Your task to perform on an android device: change the upload size in google photos Image 0: 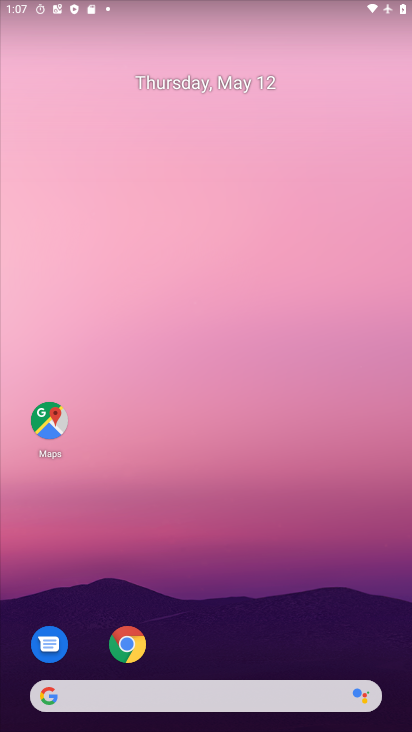
Step 0: drag from (275, 588) to (183, 116)
Your task to perform on an android device: change the upload size in google photos Image 1: 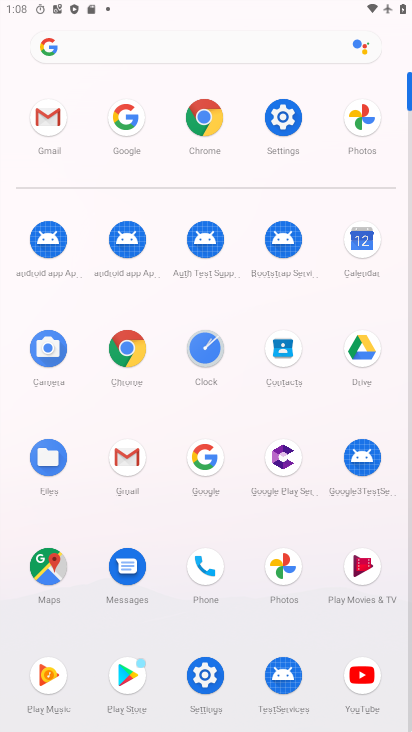
Step 1: click (280, 577)
Your task to perform on an android device: change the upload size in google photos Image 2: 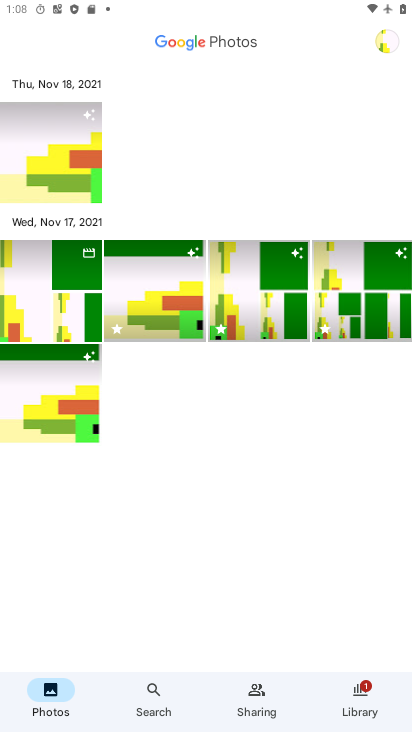
Step 2: click (382, 39)
Your task to perform on an android device: change the upload size in google photos Image 3: 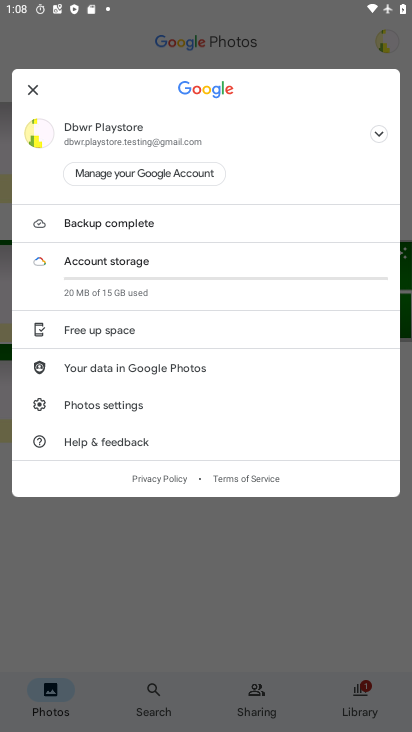
Step 3: click (119, 404)
Your task to perform on an android device: change the upload size in google photos Image 4: 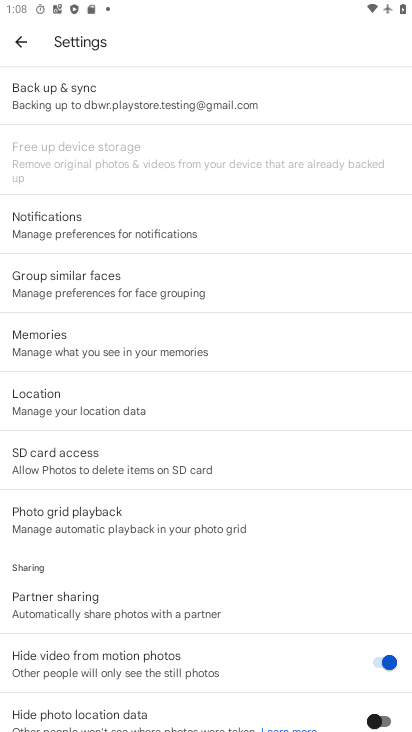
Step 4: click (107, 89)
Your task to perform on an android device: change the upload size in google photos Image 5: 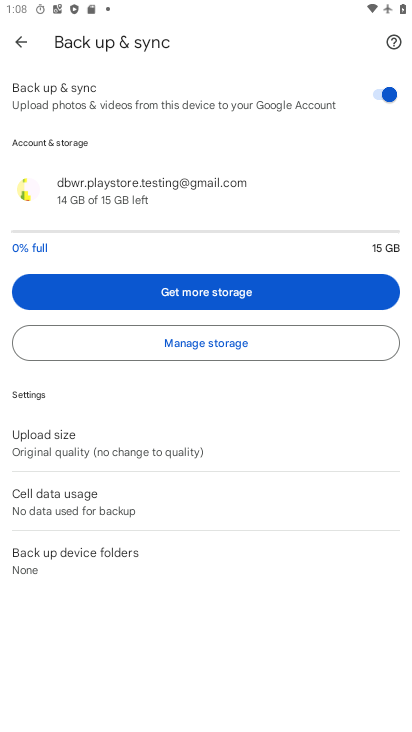
Step 5: click (84, 437)
Your task to perform on an android device: change the upload size in google photos Image 6: 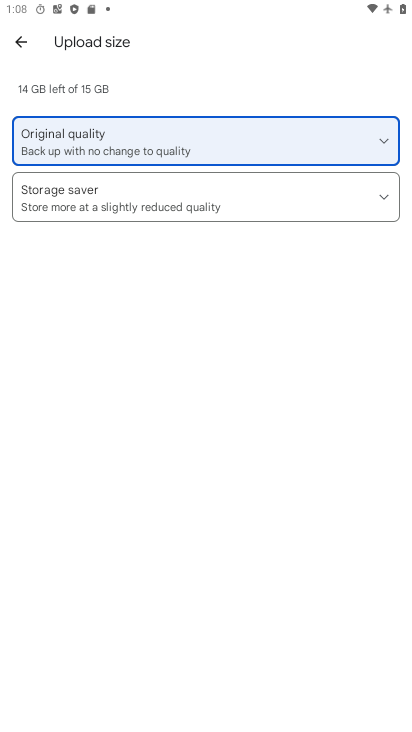
Step 6: click (130, 206)
Your task to perform on an android device: change the upload size in google photos Image 7: 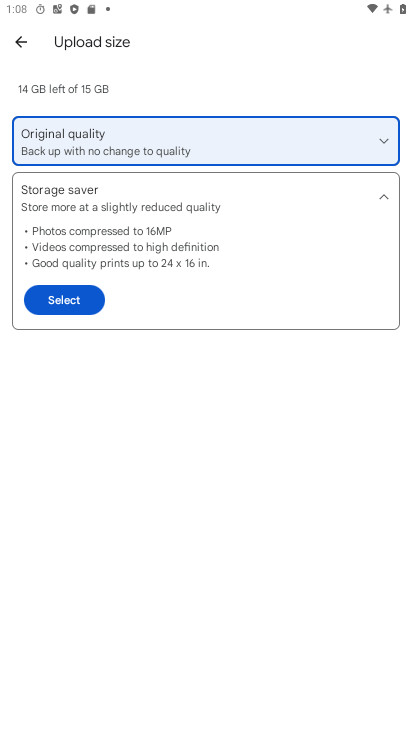
Step 7: click (74, 305)
Your task to perform on an android device: change the upload size in google photos Image 8: 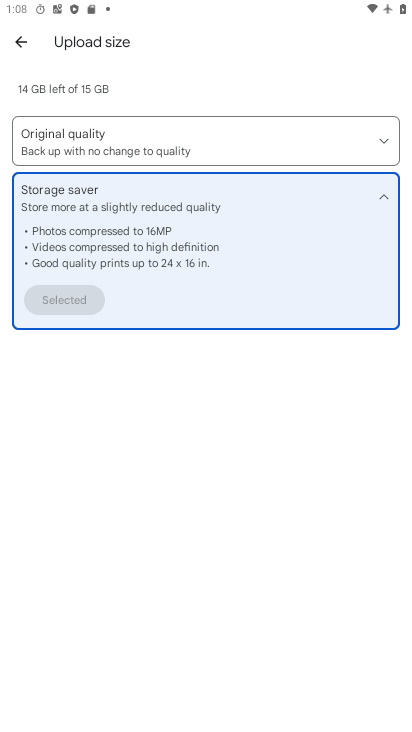
Step 8: task complete